Your task to perform on an android device: toggle show notifications on the lock screen Image 0: 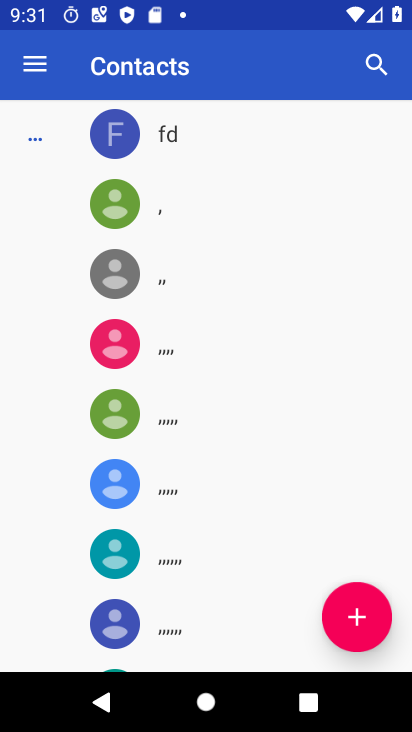
Step 0: press home button
Your task to perform on an android device: toggle show notifications on the lock screen Image 1: 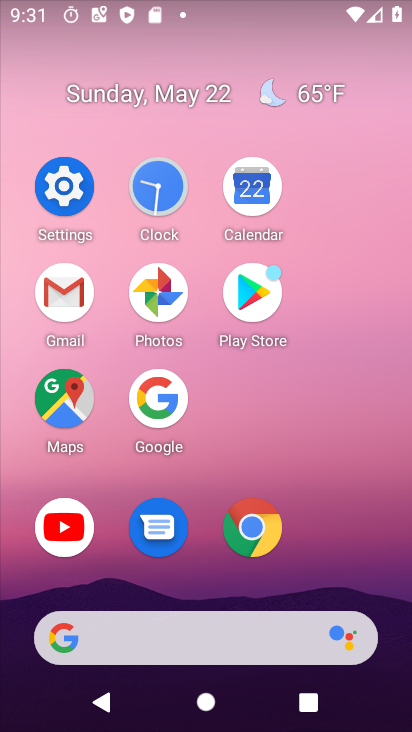
Step 1: click (48, 192)
Your task to perform on an android device: toggle show notifications on the lock screen Image 2: 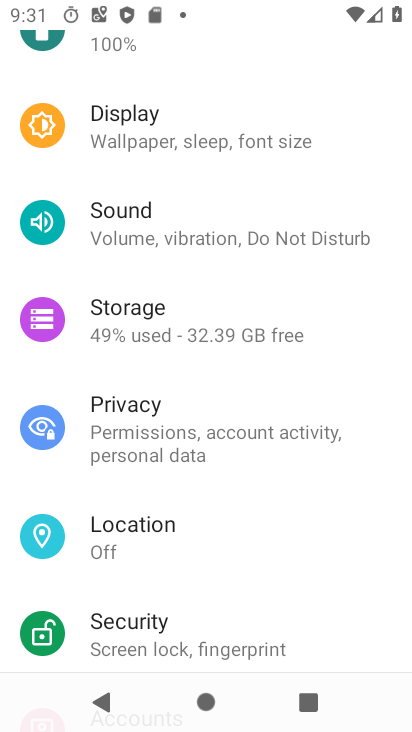
Step 2: drag from (301, 249) to (333, 634)
Your task to perform on an android device: toggle show notifications on the lock screen Image 3: 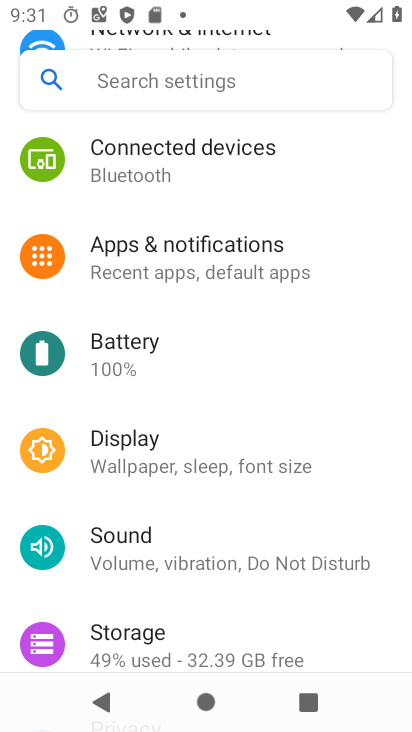
Step 3: click (283, 253)
Your task to perform on an android device: toggle show notifications on the lock screen Image 4: 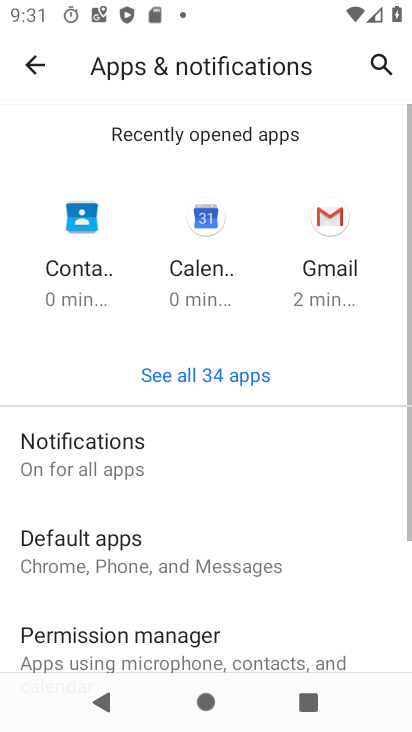
Step 4: click (128, 438)
Your task to perform on an android device: toggle show notifications on the lock screen Image 5: 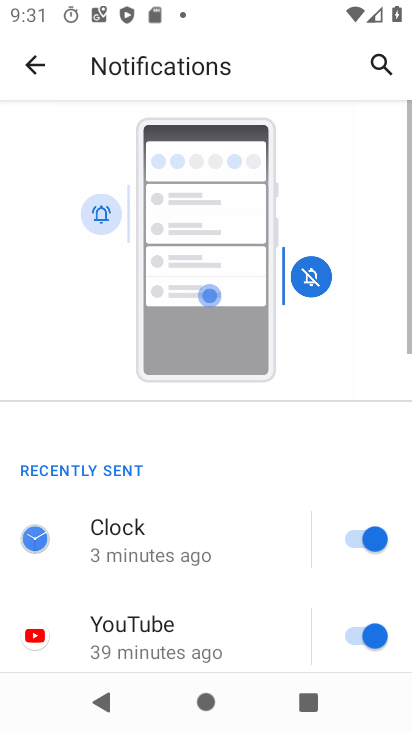
Step 5: drag from (225, 602) to (233, 164)
Your task to perform on an android device: toggle show notifications on the lock screen Image 6: 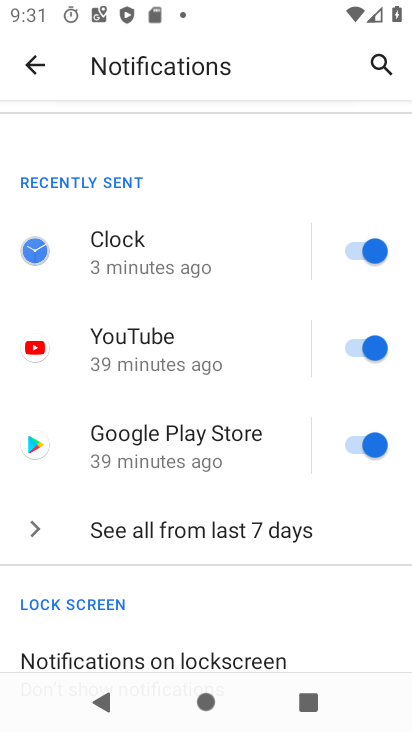
Step 6: drag from (231, 612) to (212, 229)
Your task to perform on an android device: toggle show notifications on the lock screen Image 7: 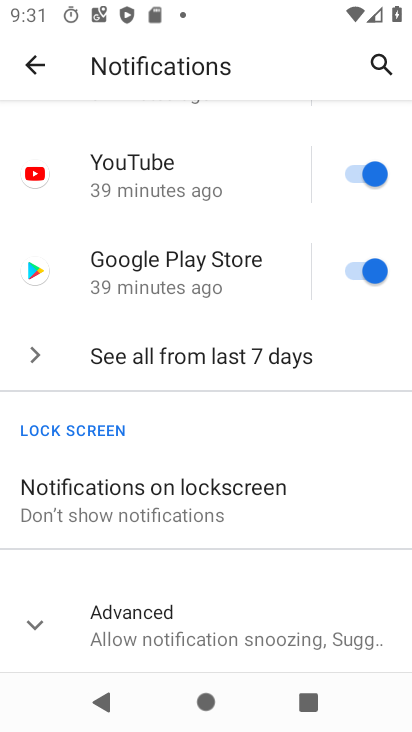
Step 7: click (193, 478)
Your task to perform on an android device: toggle show notifications on the lock screen Image 8: 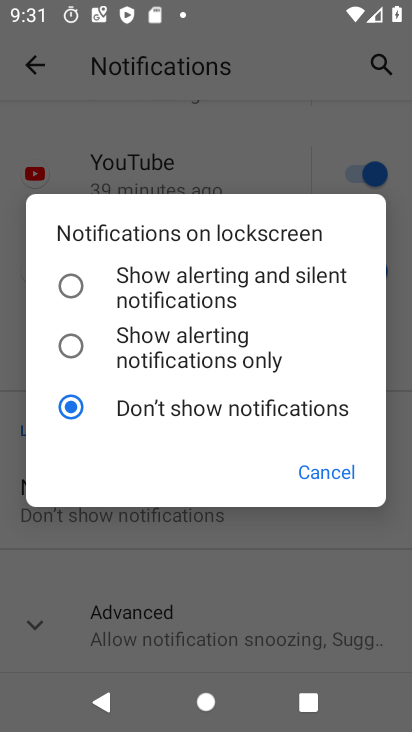
Step 8: click (161, 296)
Your task to perform on an android device: toggle show notifications on the lock screen Image 9: 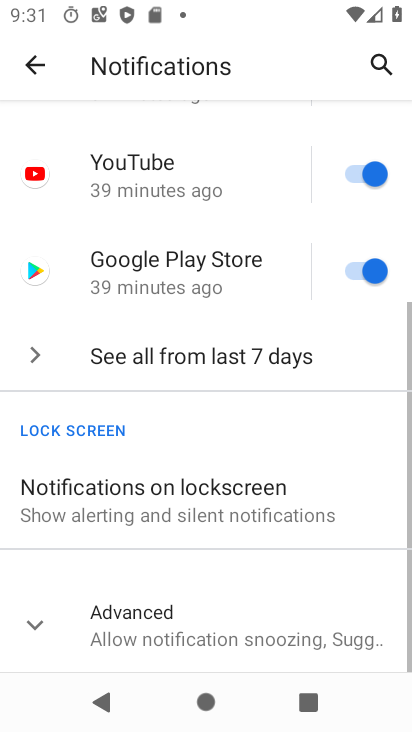
Step 9: task complete